Your task to perform on an android device: What's the weather going to be this weekend? Image 0: 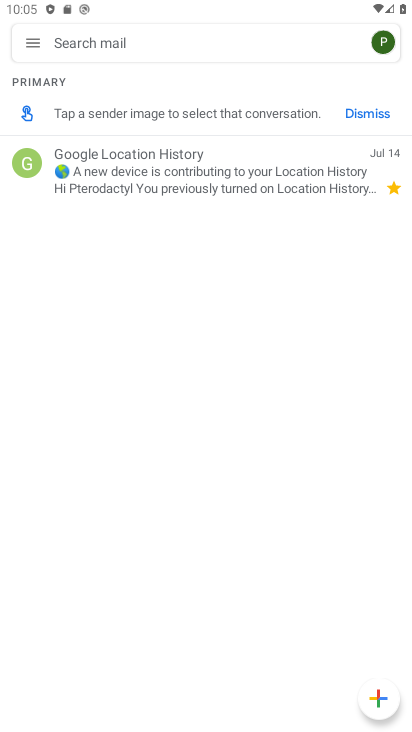
Step 0: press home button
Your task to perform on an android device: What's the weather going to be this weekend? Image 1: 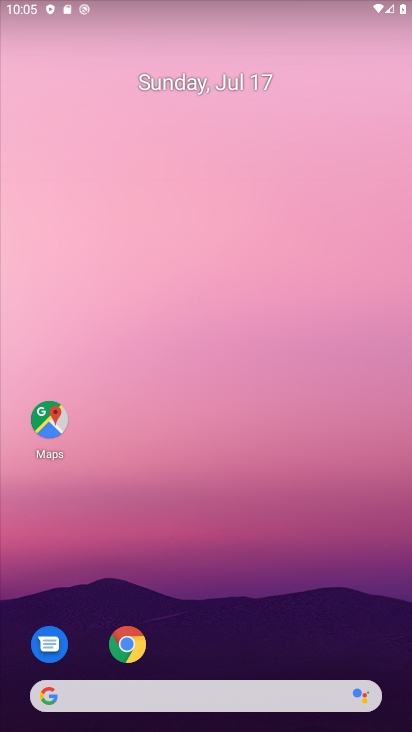
Step 1: drag from (363, 588) to (185, 0)
Your task to perform on an android device: What's the weather going to be this weekend? Image 2: 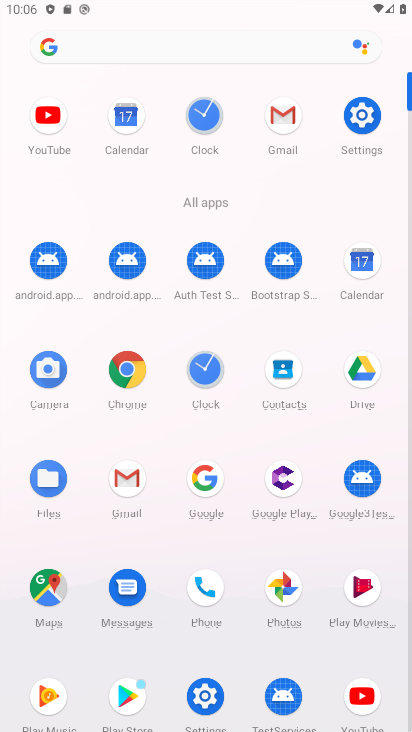
Step 2: click (211, 541)
Your task to perform on an android device: What's the weather going to be this weekend? Image 3: 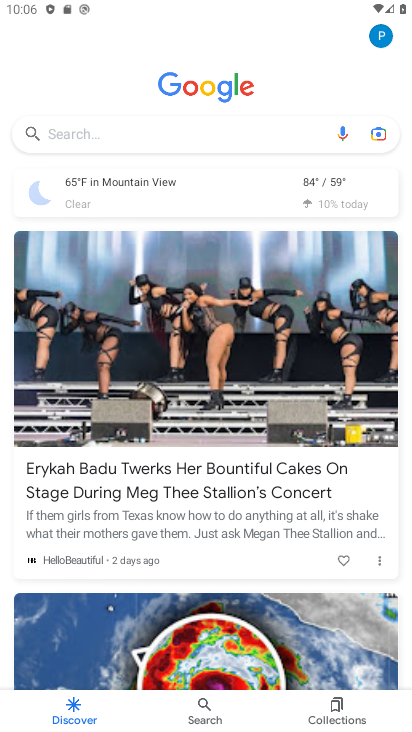
Step 3: click (122, 184)
Your task to perform on an android device: What's the weather going to be this weekend? Image 4: 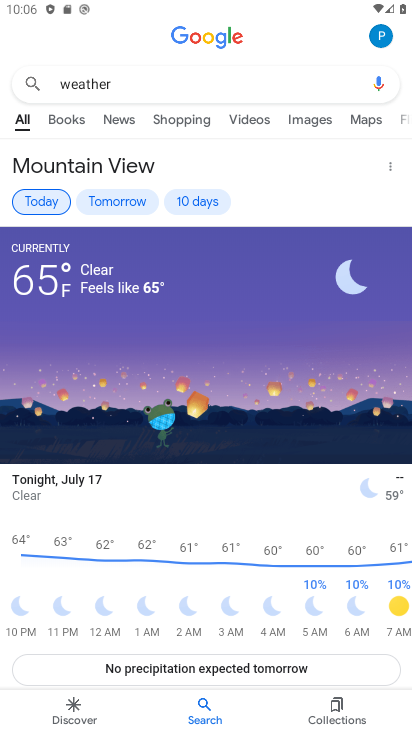
Step 4: task complete